Your task to perform on an android device: turn off translation in the chrome app Image 0: 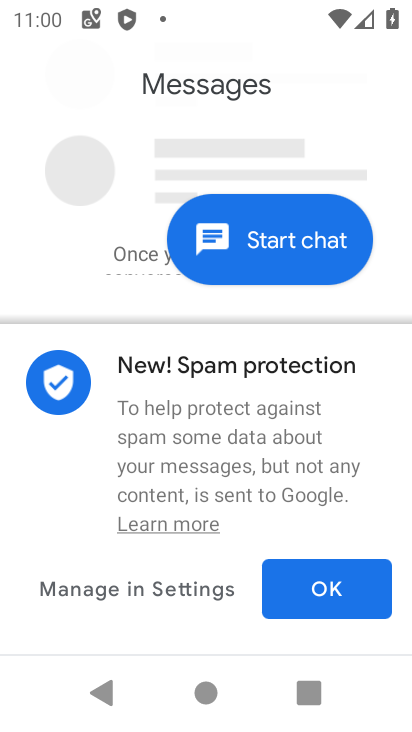
Step 0: press home button
Your task to perform on an android device: turn off translation in the chrome app Image 1: 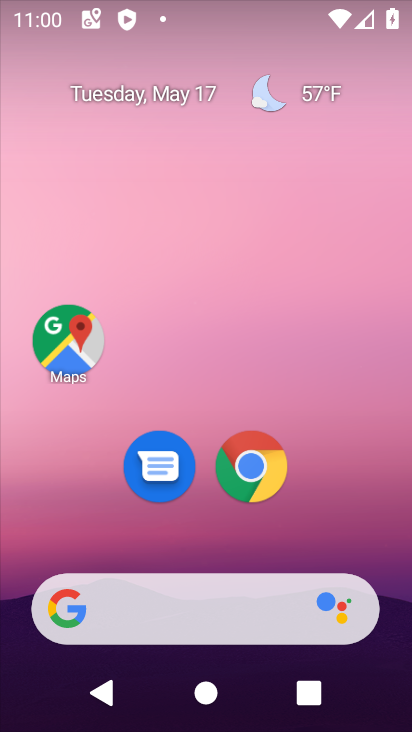
Step 1: click (254, 483)
Your task to perform on an android device: turn off translation in the chrome app Image 2: 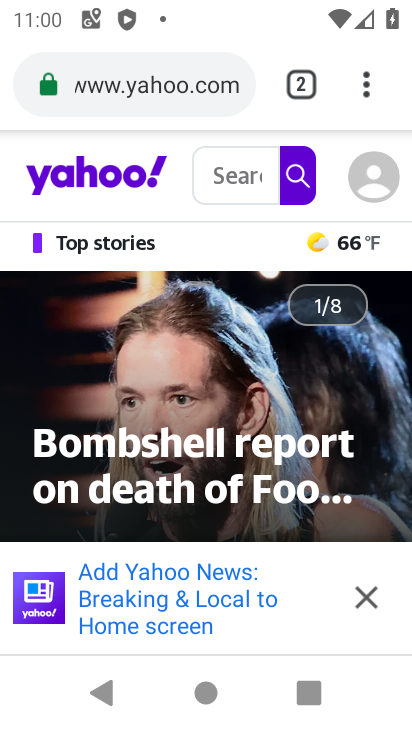
Step 2: click (361, 84)
Your task to perform on an android device: turn off translation in the chrome app Image 3: 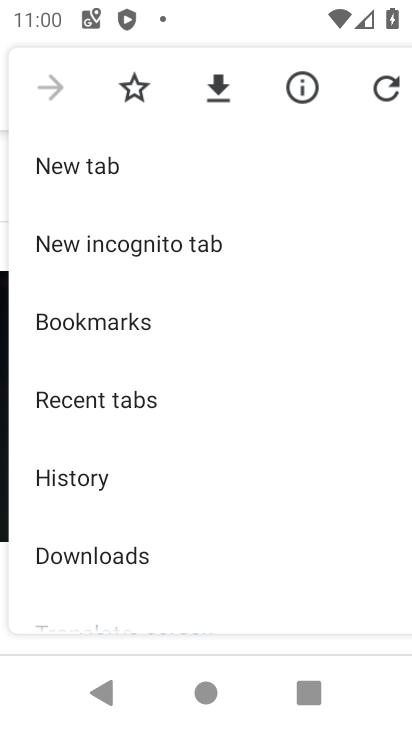
Step 3: drag from (183, 539) to (139, 192)
Your task to perform on an android device: turn off translation in the chrome app Image 4: 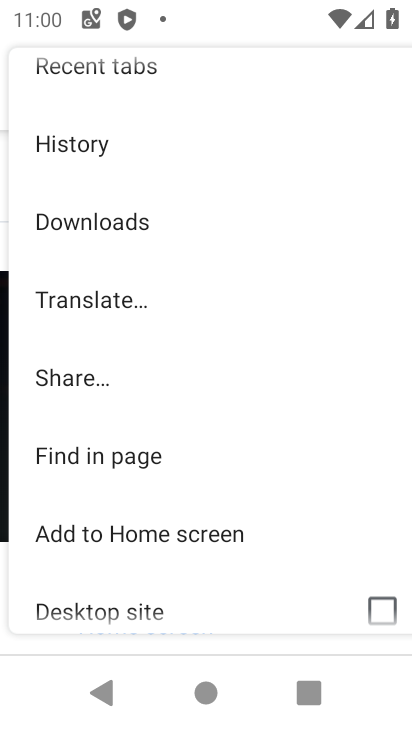
Step 4: drag from (102, 503) to (75, 125)
Your task to perform on an android device: turn off translation in the chrome app Image 5: 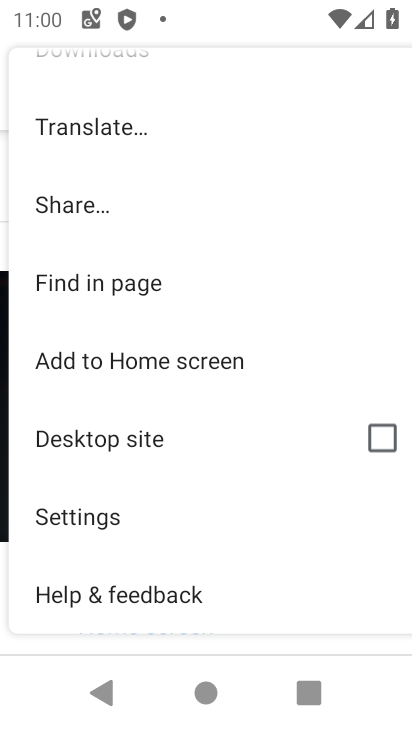
Step 5: click (95, 518)
Your task to perform on an android device: turn off translation in the chrome app Image 6: 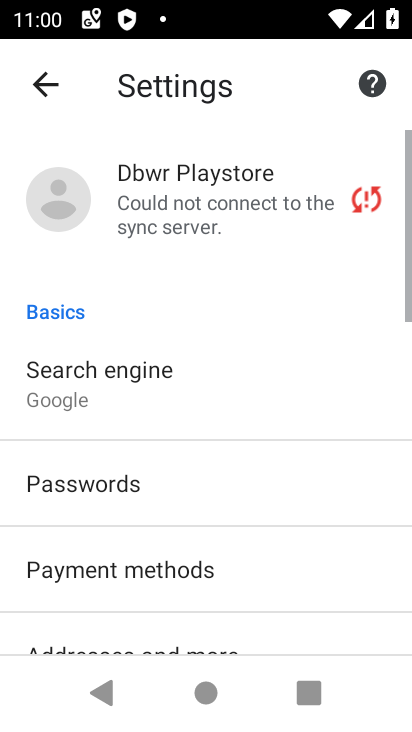
Step 6: drag from (173, 525) to (139, 153)
Your task to perform on an android device: turn off translation in the chrome app Image 7: 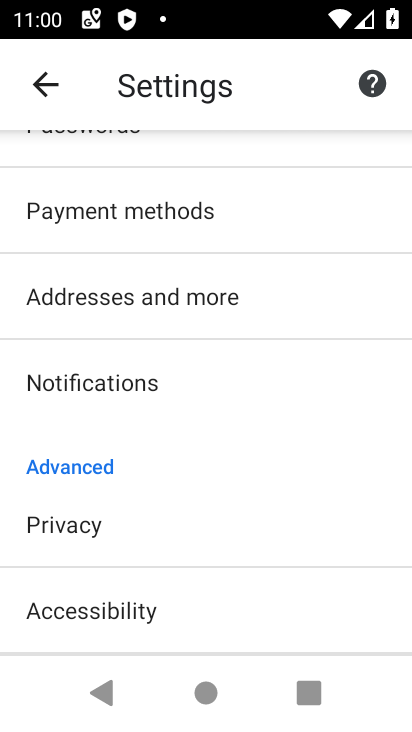
Step 7: drag from (131, 578) to (95, 139)
Your task to perform on an android device: turn off translation in the chrome app Image 8: 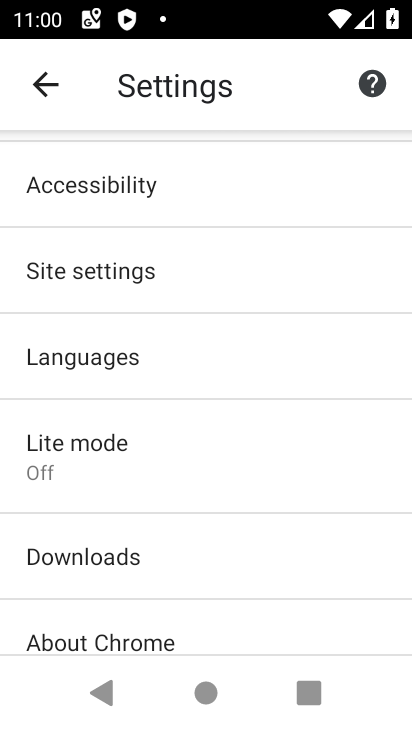
Step 8: click (103, 364)
Your task to perform on an android device: turn off translation in the chrome app Image 9: 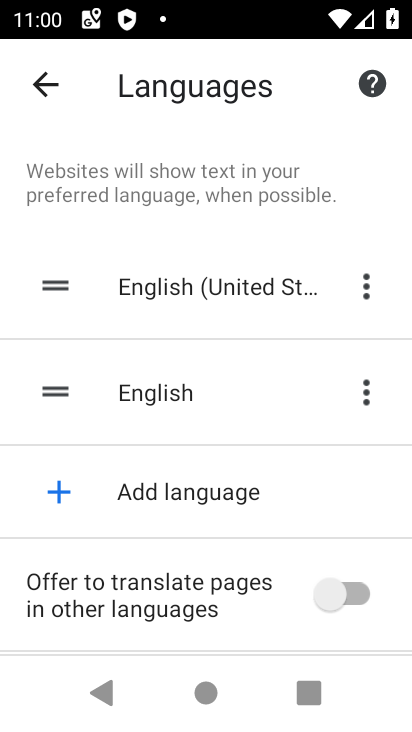
Step 9: task complete